Your task to perform on an android device: see sites visited before in the chrome app Image 0: 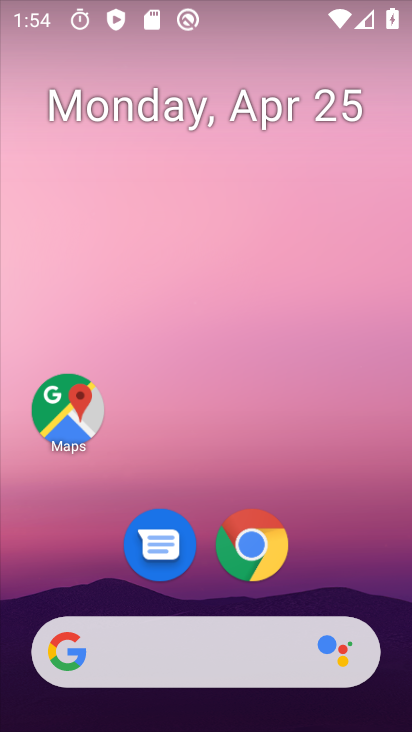
Step 0: click (259, 551)
Your task to perform on an android device: see sites visited before in the chrome app Image 1: 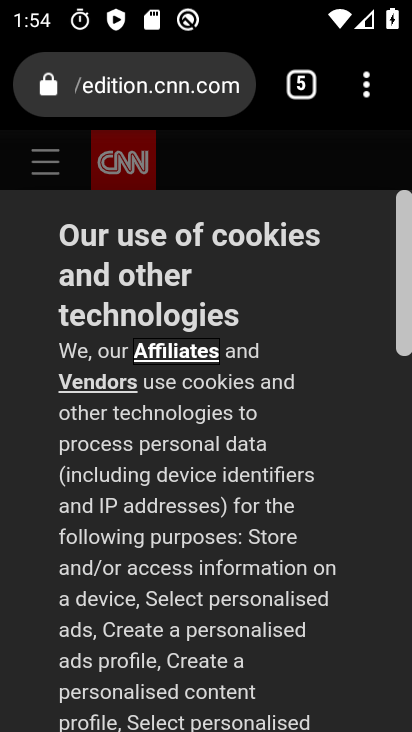
Step 1: click (372, 85)
Your task to perform on an android device: see sites visited before in the chrome app Image 2: 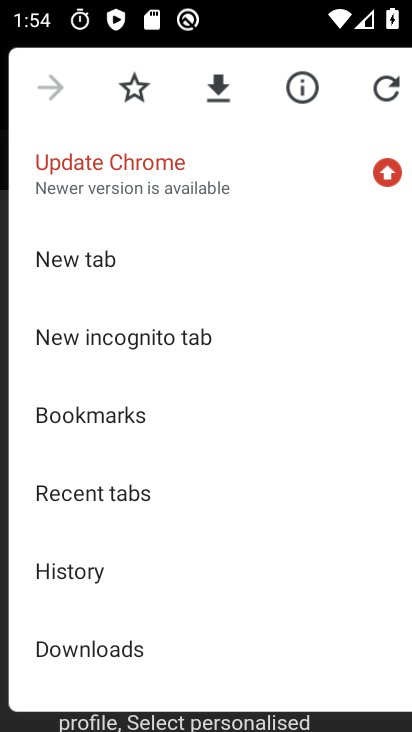
Step 2: click (89, 576)
Your task to perform on an android device: see sites visited before in the chrome app Image 3: 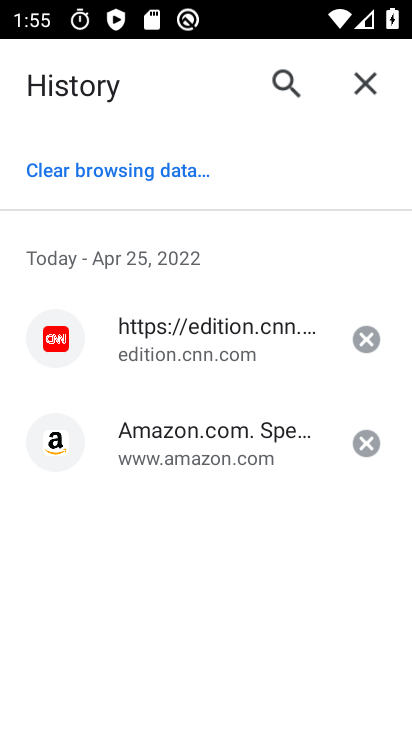
Step 3: task complete